Your task to perform on an android device: turn notification dots on Image 0: 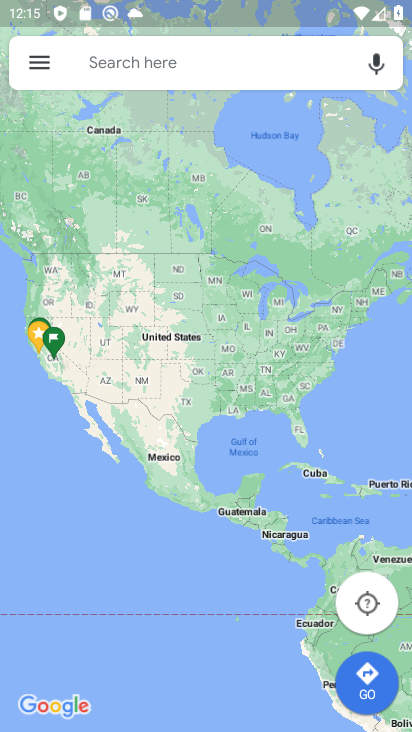
Step 0: press back button
Your task to perform on an android device: turn notification dots on Image 1: 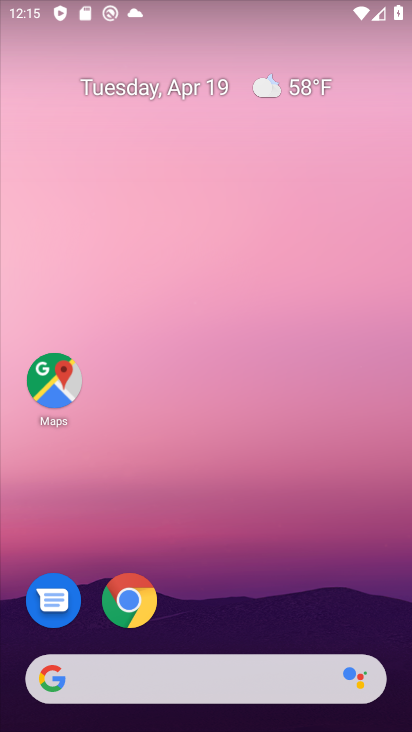
Step 1: drag from (307, 731) to (240, 296)
Your task to perform on an android device: turn notification dots on Image 2: 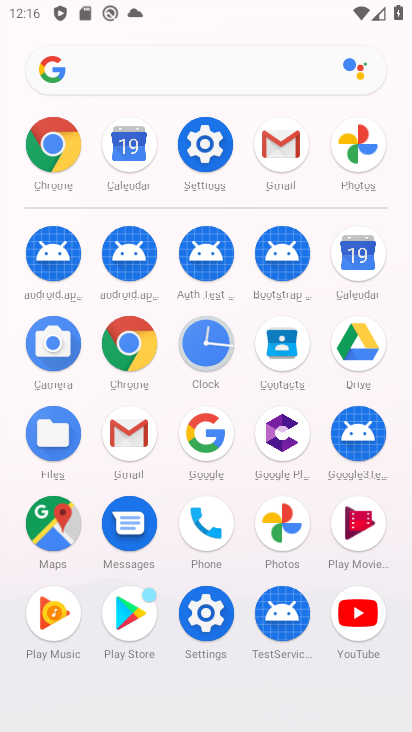
Step 2: click (201, 162)
Your task to perform on an android device: turn notification dots on Image 3: 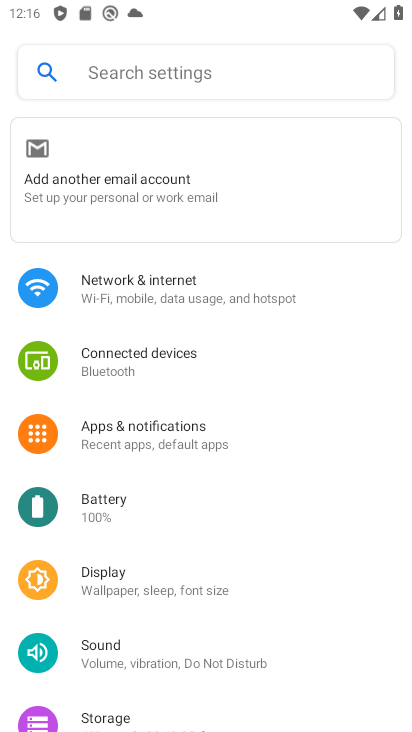
Step 3: click (170, 87)
Your task to perform on an android device: turn notification dots on Image 4: 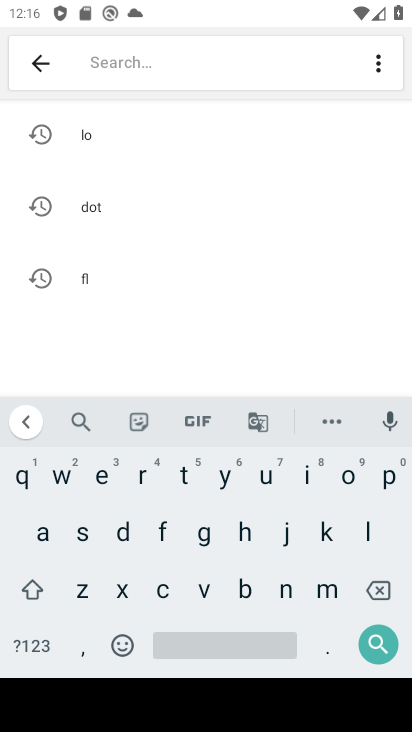
Step 4: click (97, 199)
Your task to perform on an android device: turn notification dots on Image 5: 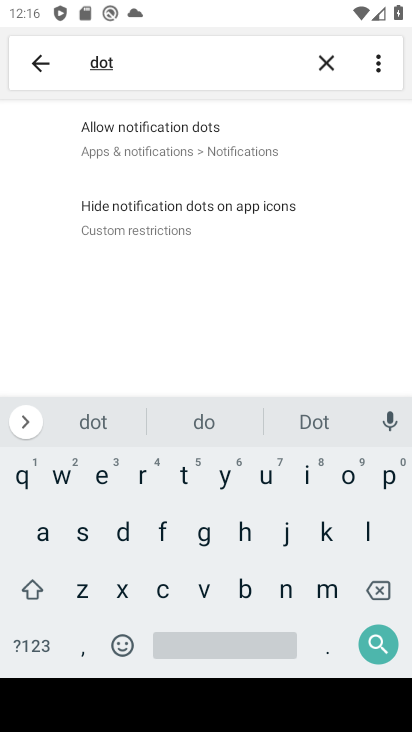
Step 5: click (243, 142)
Your task to perform on an android device: turn notification dots on Image 6: 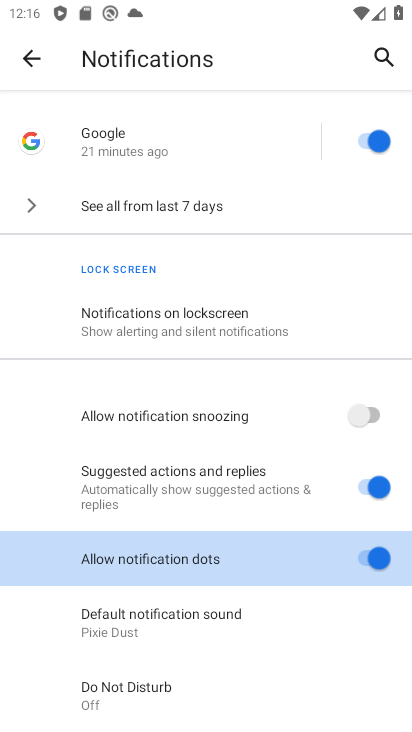
Step 6: click (203, 553)
Your task to perform on an android device: turn notification dots on Image 7: 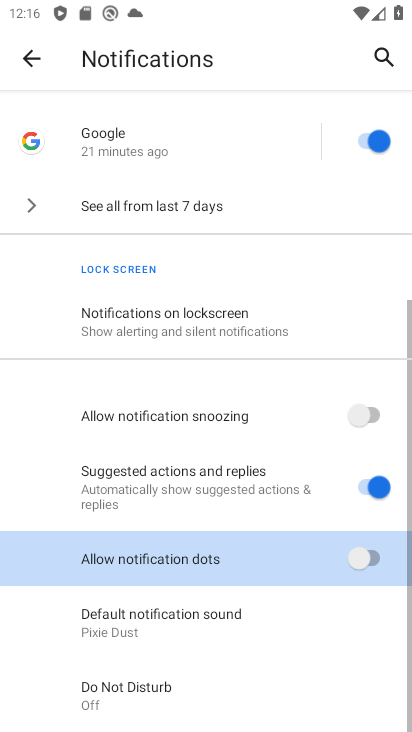
Step 7: click (203, 553)
Your task to perform on an android device: turn notification dots on Image 8: 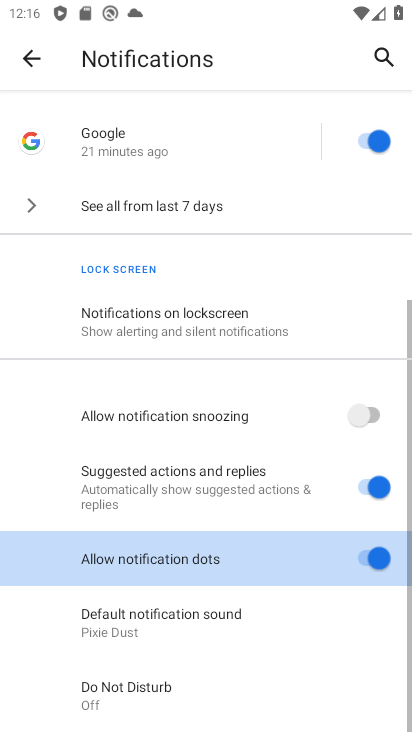
Step 8: task complete